Your task to perform on an android device: What's on my calendar tomorrow? Image 0: 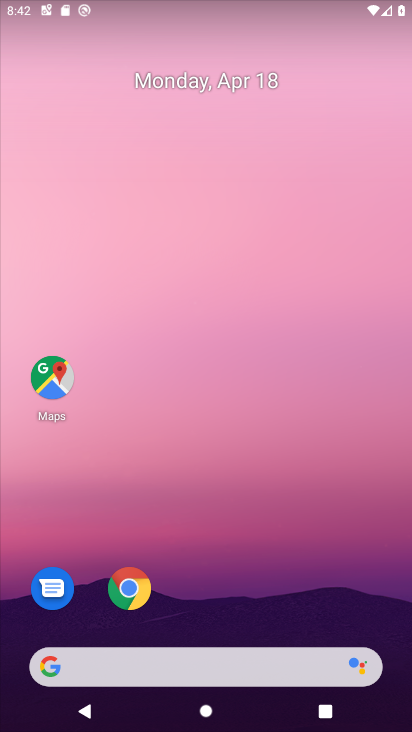
Step 0: drag from (271, 553) to (246, 51)
Your task to perform on an android device: What's on my calendar tomorrow? Image 1: 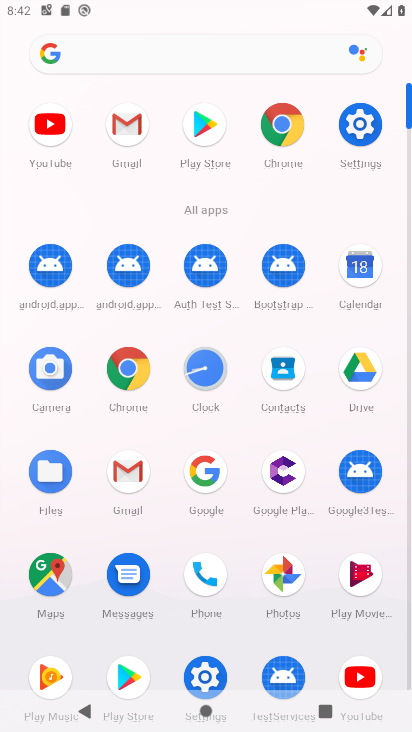
Step 1: click (362, 263)
Your task to perform on an android device: What's on my calendar tomorrow? Image 2: 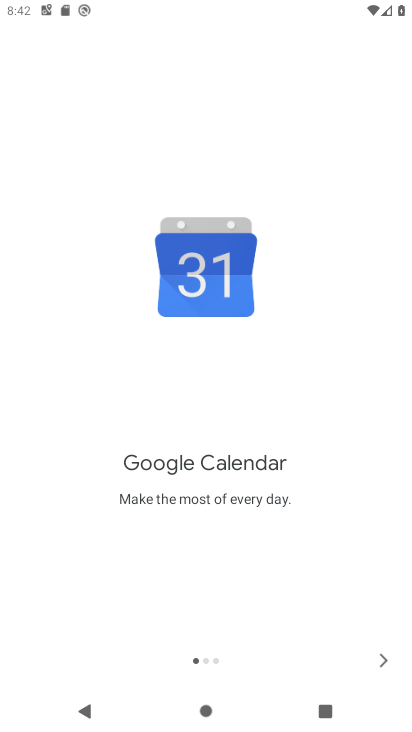
Step 2: click (380, 658)
Your task to perform on an android device: What's on my calendar tomorrow? Image 3: 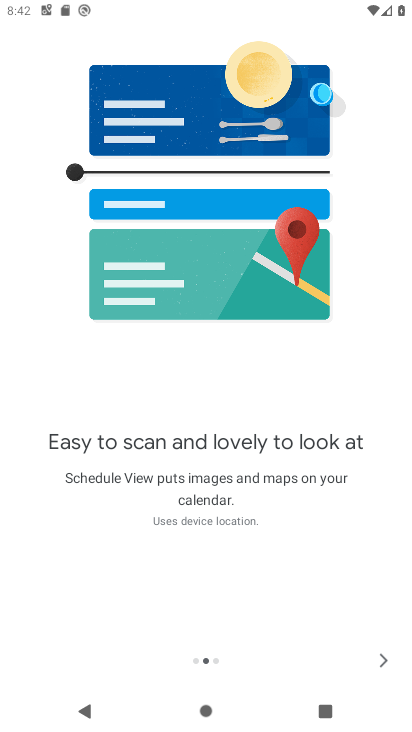
Step 3: click (380, 658)
Your task to perform on an android device: What's on my calendar tomorrow? Image 4: 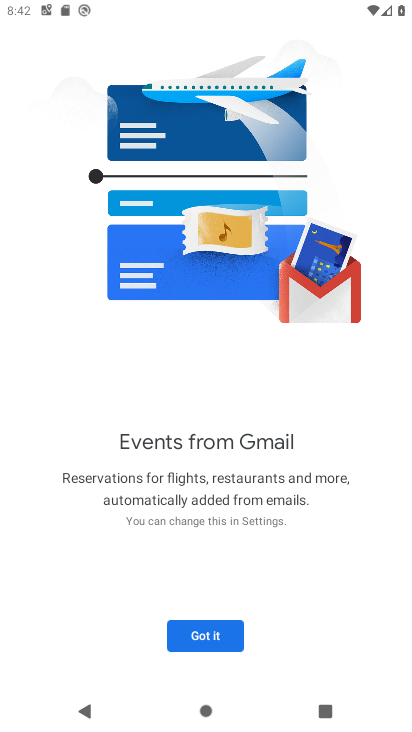
Step 4: click (218, 640)
Your task to perform on an android device: What's on my calendar tomorrow? Image 5: 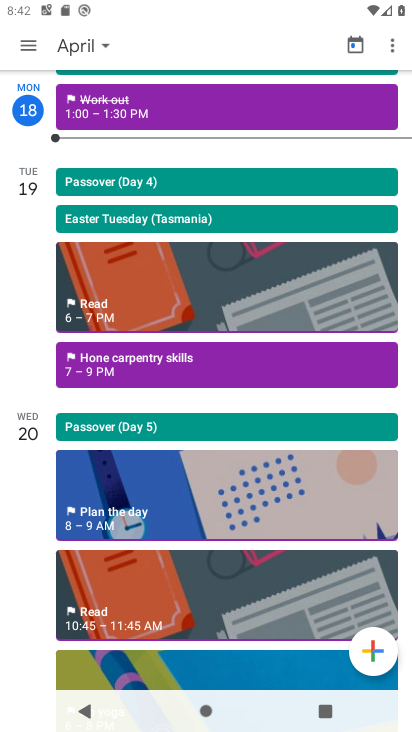
Step 5: click (24, 439)
Your task to perform on an android device: What's on my calendar tomorrow? Image 6: 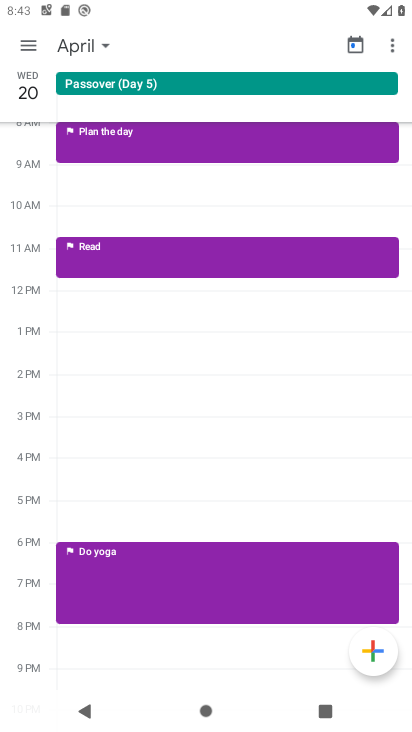
Step 6: task complete